Your task to perform on an android device: Search for pizza restaurants on Maps Image 0: 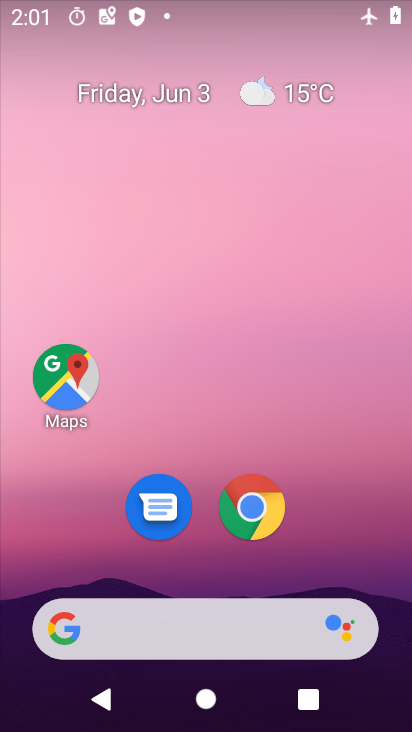
Step 0: drag from (394, 627) to (334, 49)
Your task to perform on an android device: Search for pizza restaurants on Maps Image 1: 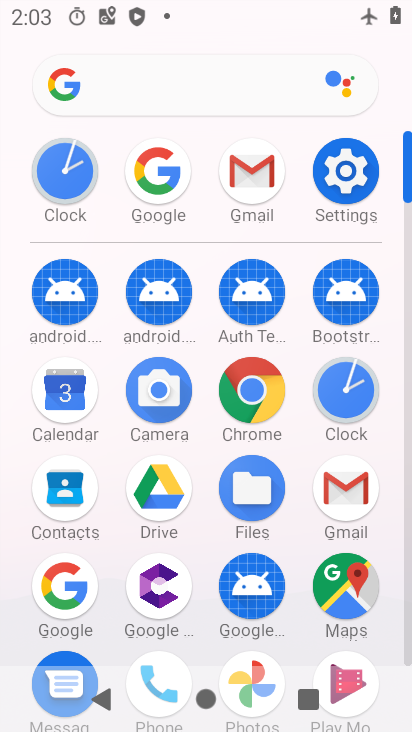
Step 1: click (350, 571)
Your task to perform on an android device: Search for pizza restaurants on Maps Image 2: 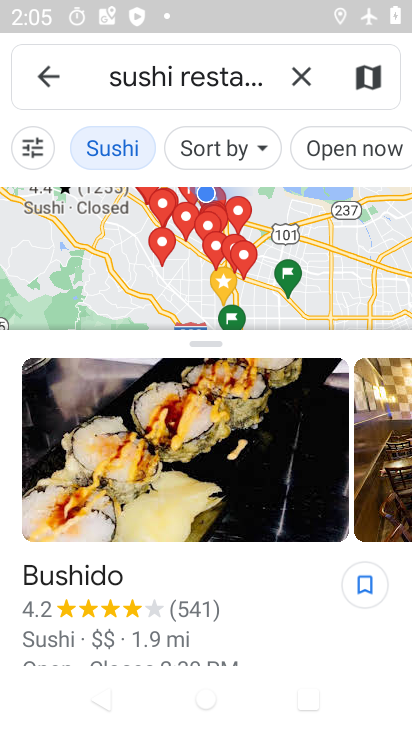
Step 2: click (297, 79)
Your task to perform on an android device: Search for pizza restaurants on Maps Image 3: 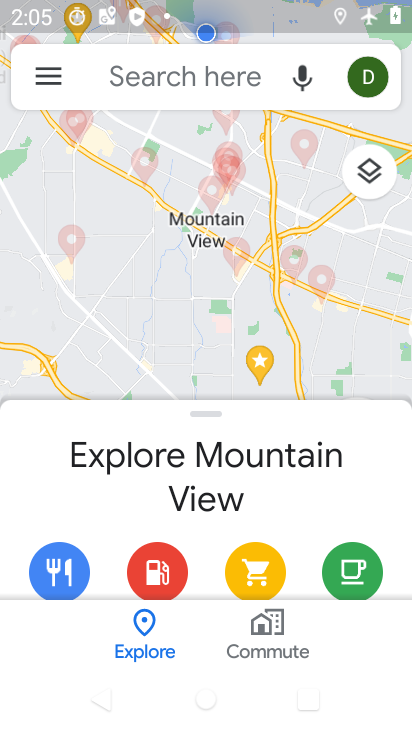
Step 3: click (169, 73)
Your task to perform on an android device: Search for pizza restaurants on Maps Image 4: 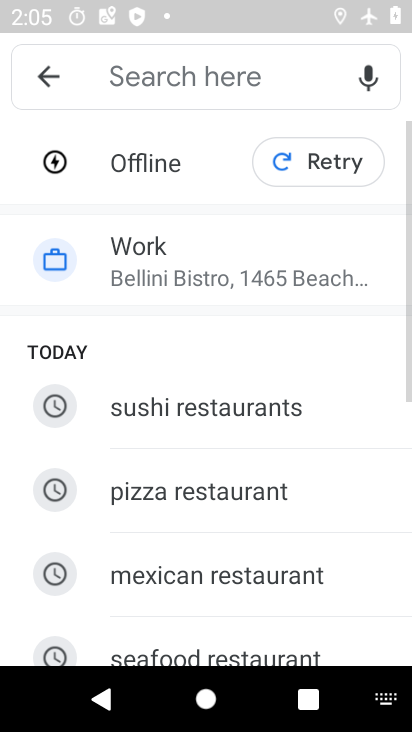
Step 4: click (177, 492)
Your task to perform on an android device: Search for pizza restaurants on Maps Image 5: 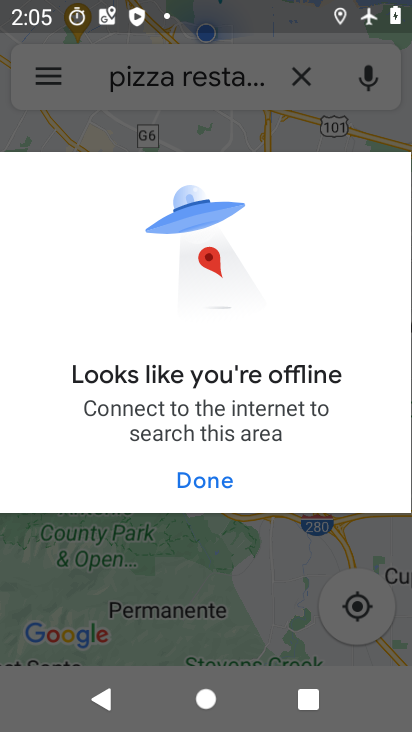
Step 5: task complete